Your task to perform on an android device: Go to internet settings Image 0: 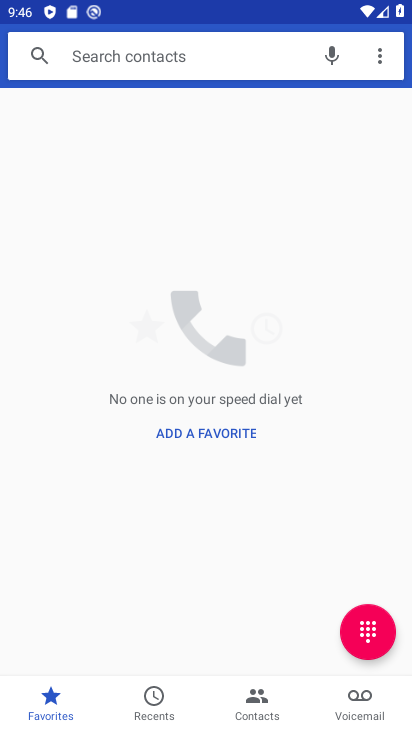
Step 0: press home button
Your task to perform on an android device: Go to internet settings Image 1: 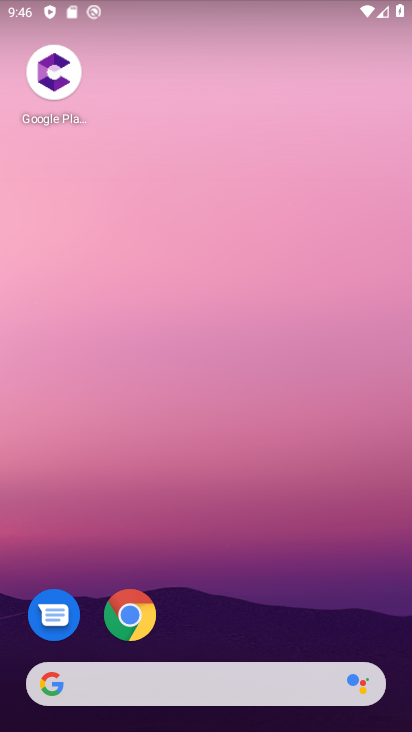
Step 1: drag from (195, 726) to (198, 608)
Your task to perform on an android device: Go to internet settings Image 2: 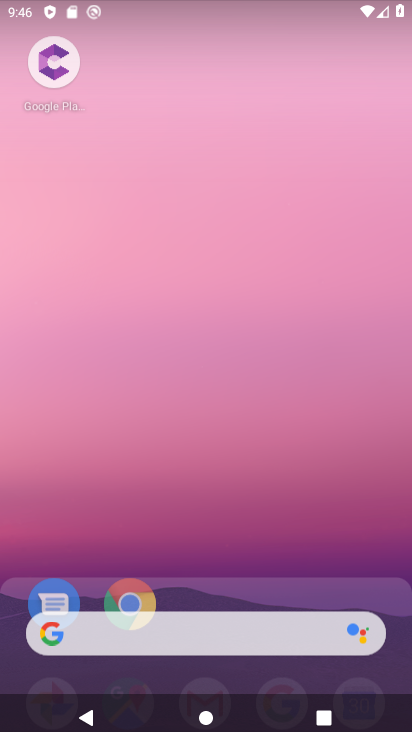
Step 2: click (200, 195)
Your task to perform on an android device: Go to internet settings Image 3: 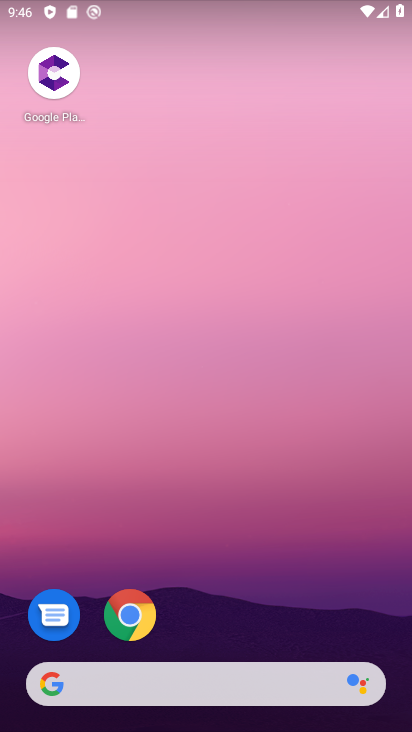
Step 3: drag from (235, 615) to (235, 0)
Your task to perform on an android device: Go to internet settings Image 4: 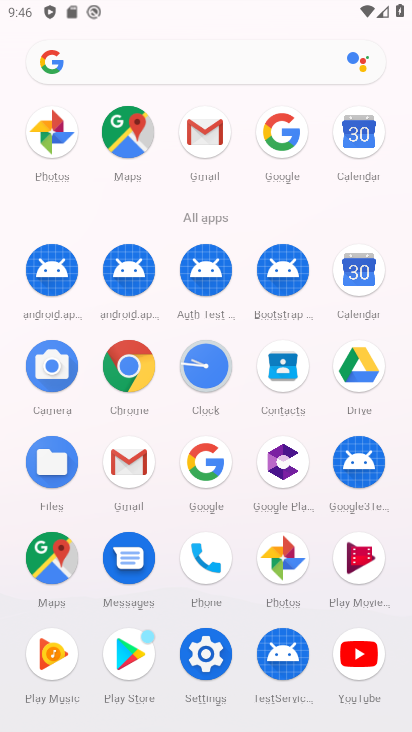
Step 4: click (206, 651)
Your task to perform on an android device: Go to internet settings Image 5: 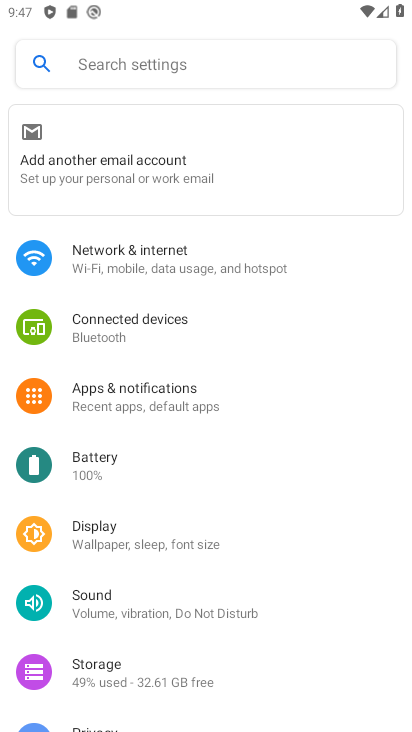
Step 5: click (133, 259)
Your task to perform on an android device: Go to internet settings Image 6: 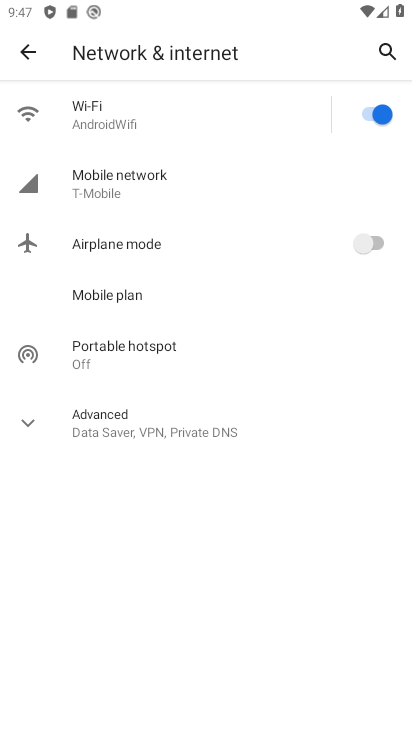
Step 6: task complete